Your task to perform on an android device: Show me popular games on the Play Store Image 0: 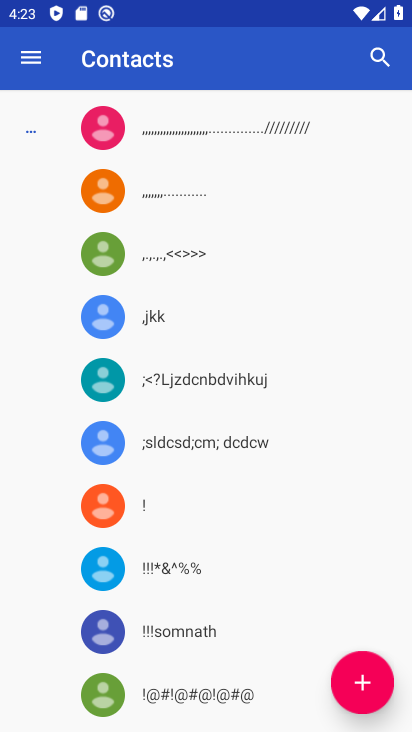
Step 0: press home button
Your task to perform on an android device: Show me popular games on the Play Store Image 1: 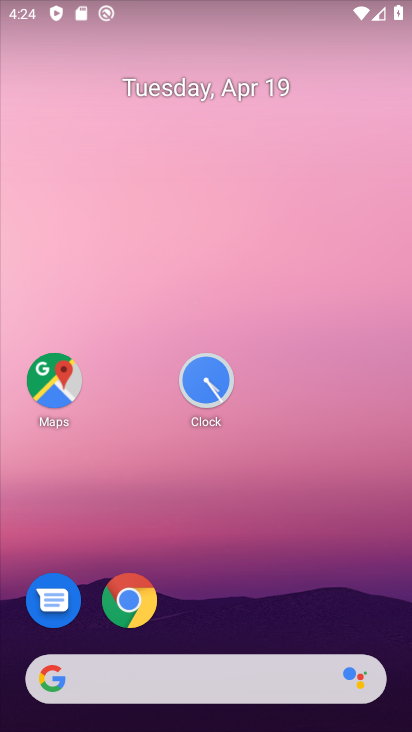
Step 1: drag from (182, 190) to (162, 115)
Your task to perform on an android device: Show me popular games on the Play Store Image 2: 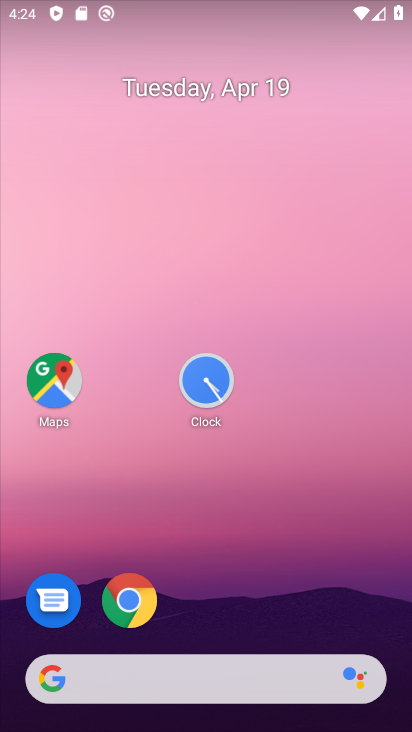
Step 2: drag from (256, 665) to (140, 34)
Your task to perform on an android device: Show me popular games on the Play Store Image 3: 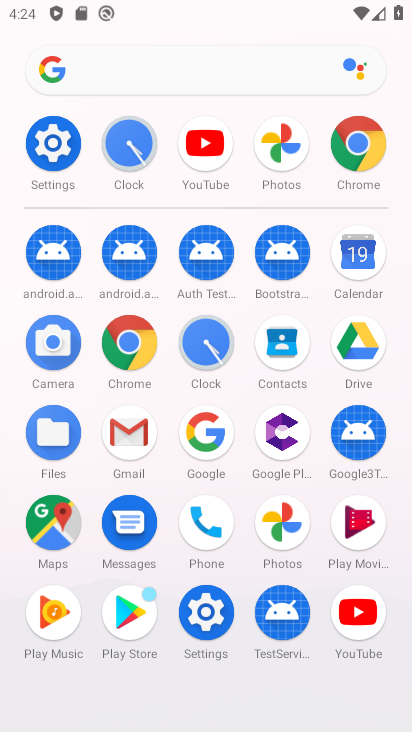
Step 3: click (131, 605)
Your task to perform on an android device: Show me popular games on the Play Store Image 4: 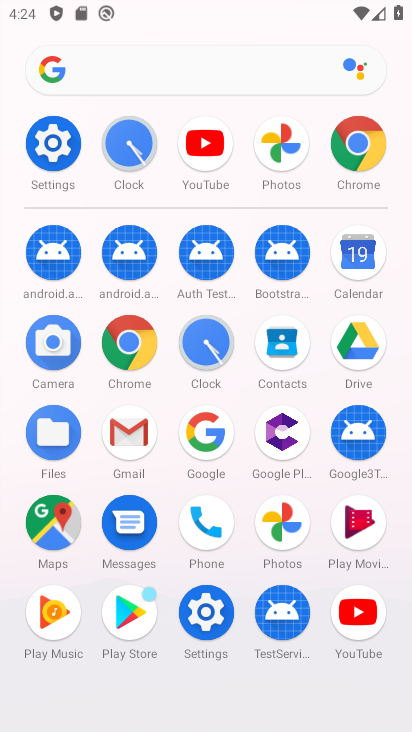
Step 4: click (131, 605)
Your task to perform on an android device: Show me popular games on the Play Store Image 5: 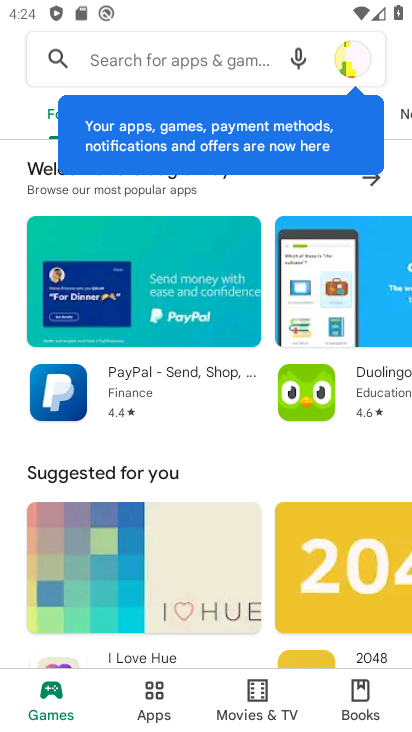
Step 5: drag from (84, 384) to (29, 196)
Your task to perform on an android device: Show me popular games on the Play Store Image 6: 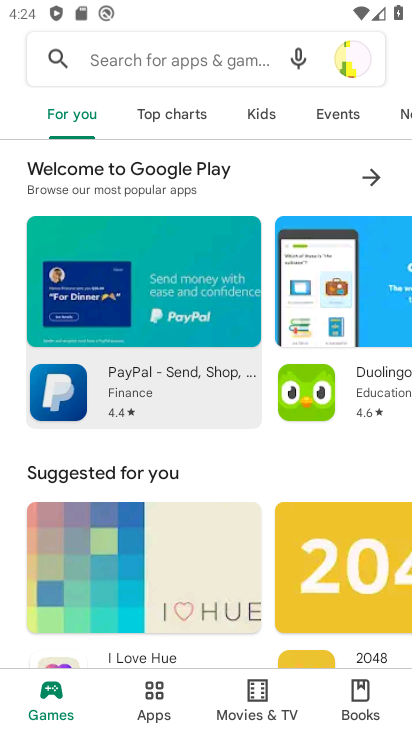
Step 6: drag from (184, 474) to (130, 149)
Your task to perform on an android device: Show me popular games on the Play Store Image 7: 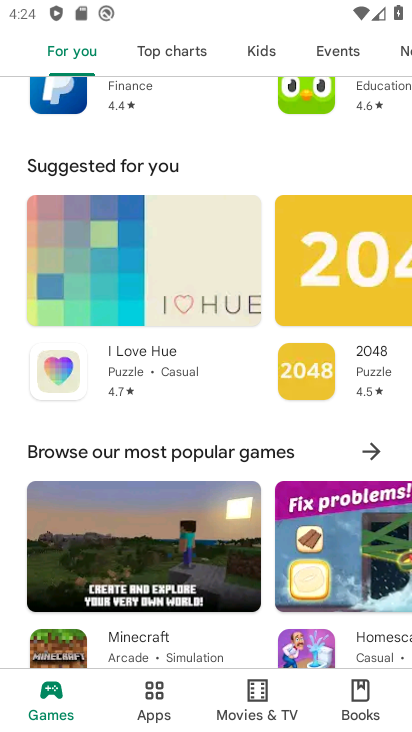
Step 7: drag from (190, 421) to (169, 149)
Your task to perform on an android device: Show me popular games on the Play Store Image 8: 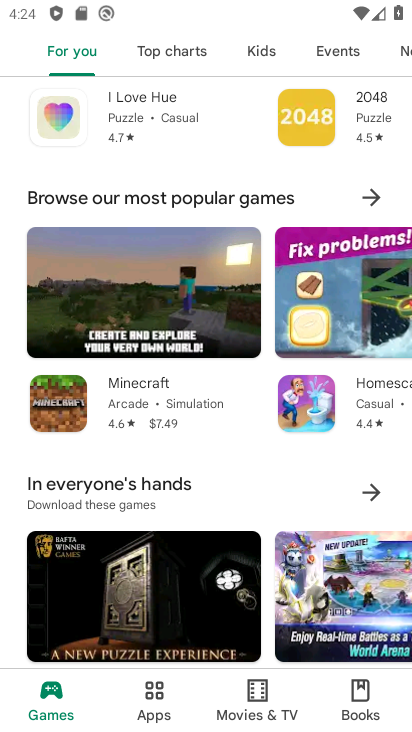
Step 8: drag from (201, 474) to (131, 89)
Your task to perform on an android device: Show me popular games on the Play Store Image 9: 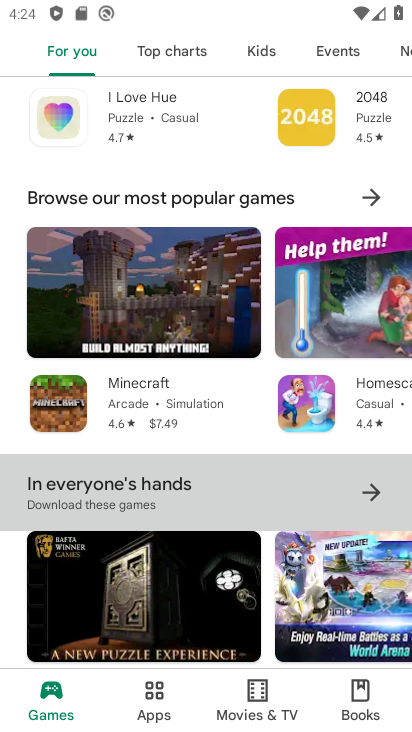
Step 9: drag from (216, 419) to (175, 68)
Your task to perform on an android device: Show me popular games on the Play Store Image 10: 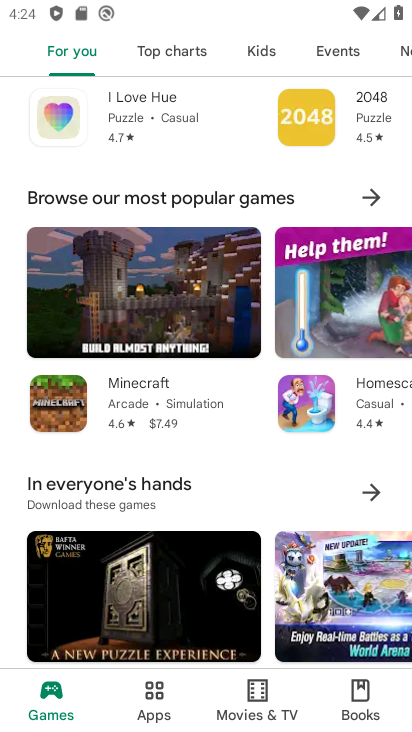
Step 10: drag from (218, 453) to (154, 46)
Your task to perform on an android device: Show me popular games on the Play Store Image 11: 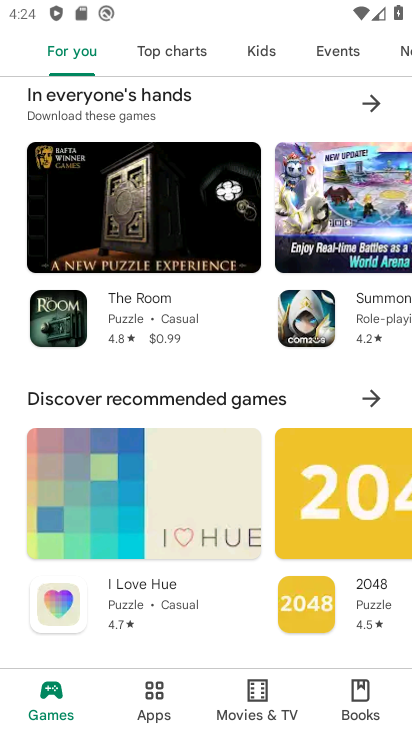
Step 11: click (132, 97)
Your task to perform on an android device: Show me popular games on the Play Store Image 12: 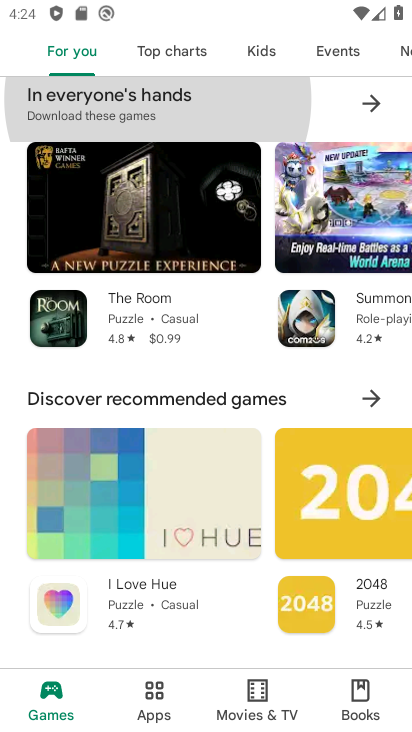
Step 12: drag from (195, 463) to (168, 225)
Your task to perform on an android device: Show me popular games on the Play Store Image 13: 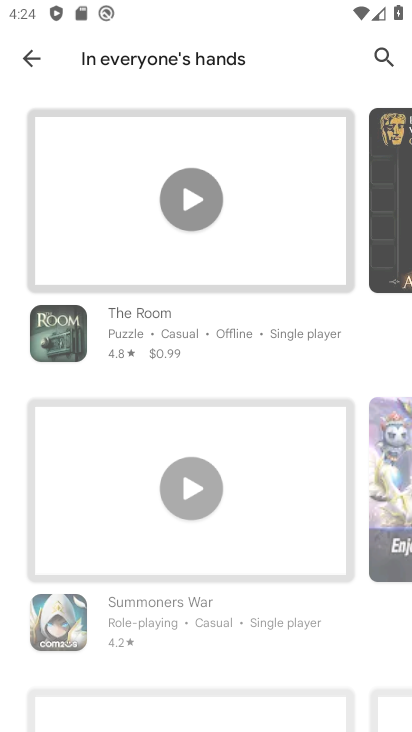
Step 13: click (106, 117)
Your task to perform on an android device: Show me popular games on the Play Store Image 14: 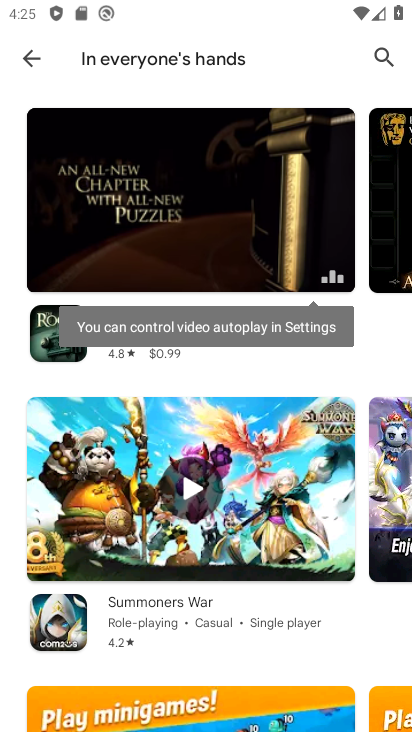
Step 14: click (23, 54)
Your task to perform on an android device: Show me popular games on the Play Store Image 15: 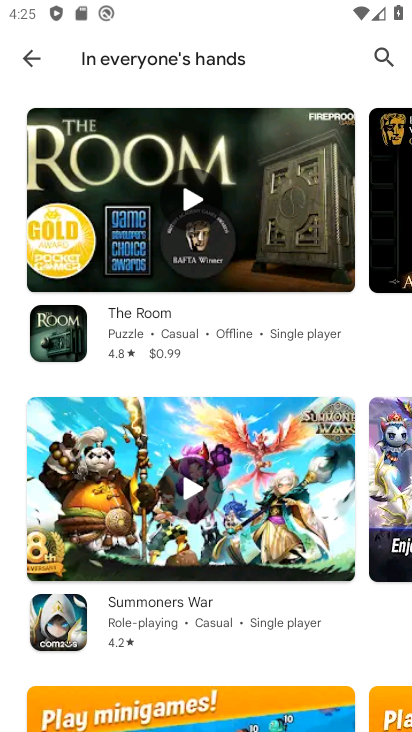
Step 15: click (24, 53)
Your task to perform on an android device: Show me popular games on the Play Store Image 16: 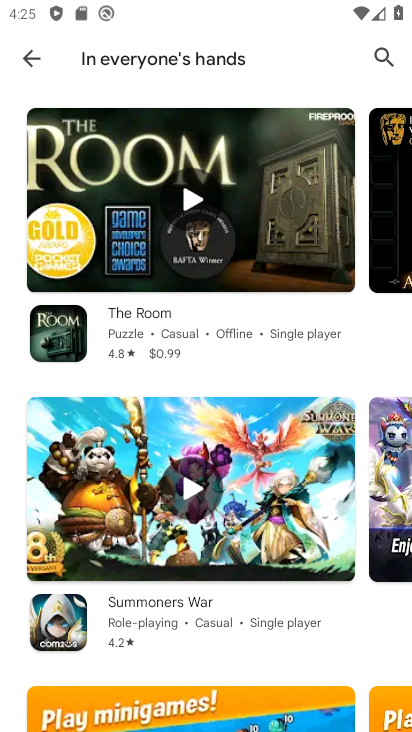
Step 16: click (24, 69)
Your task to perform on an android device: Show me popular games on the Play Store Image 17: 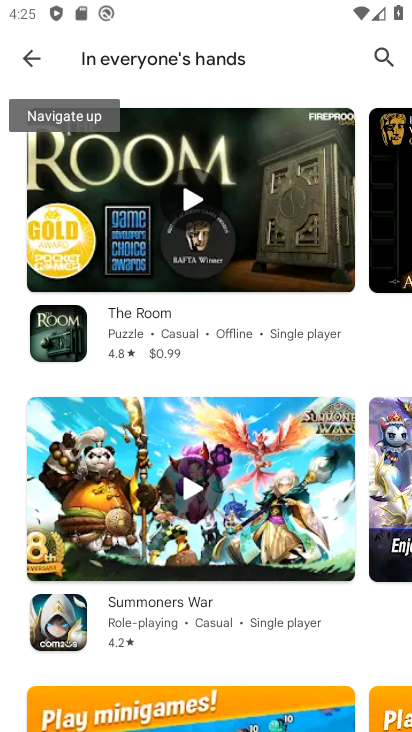
Step 17: click (24, 69)
Your task to perform on an android device: Show me popular games on the Play Store Image 18: 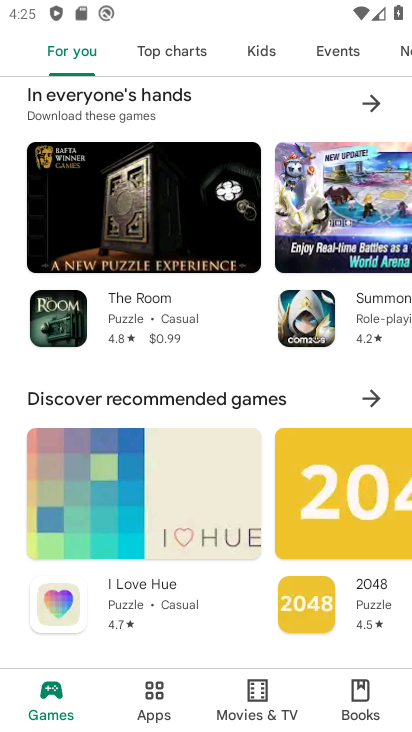
Step 18: press home button
Your task to perform on an android device: Show me popular games on the Play Store Image 19: 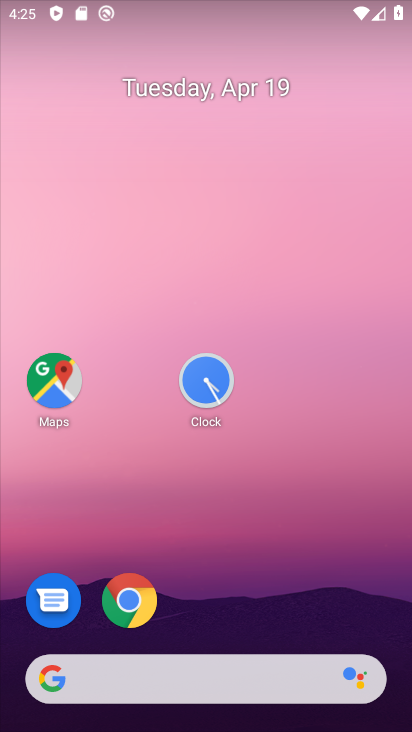
Step 19: drag from (308, 676) to (163, 260)
Your task to perform on an android device: Show me popular games on the Play Store Image 20: 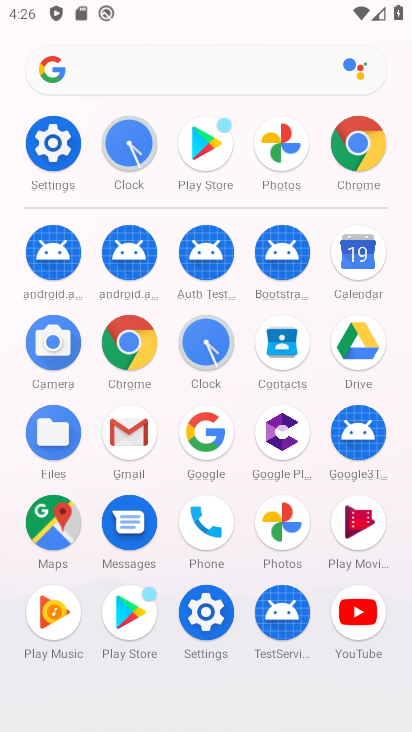
Step 20: click (130, 612)
Your task to perform on an android device: Show me popular games on the Play Store Image 21: 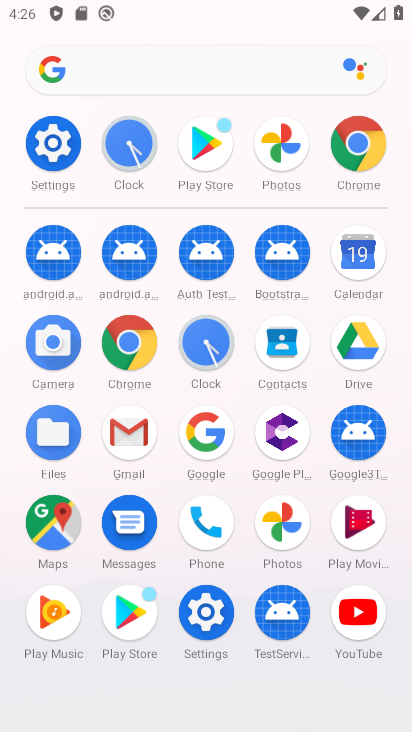
Step 21: click (130, 612)
Your task to perform on an android device: Show me popular games on the Play Store Image 22: 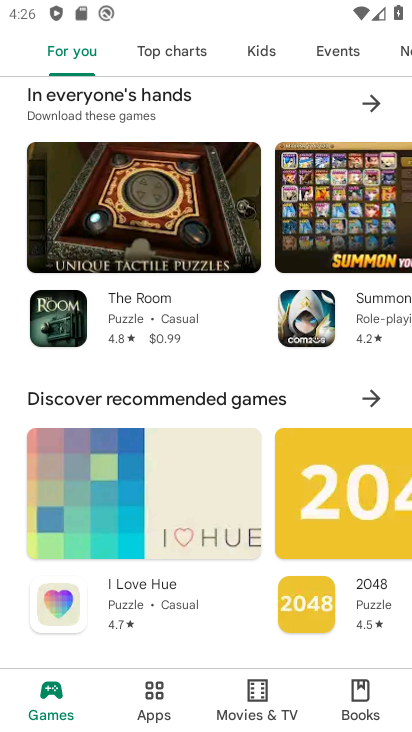
Step 22: task complete